Your task to perform on an android device: Open network settings Image 0: 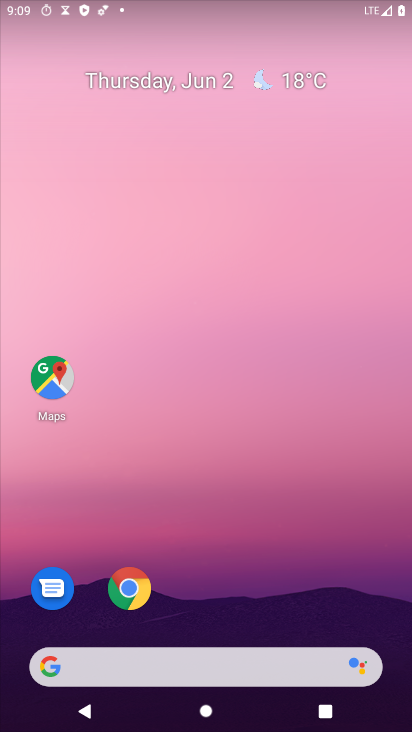
Step 0: drag from (222, 594) to (222, 79)
Your task to perform on an android device: Open network settings Image 1: 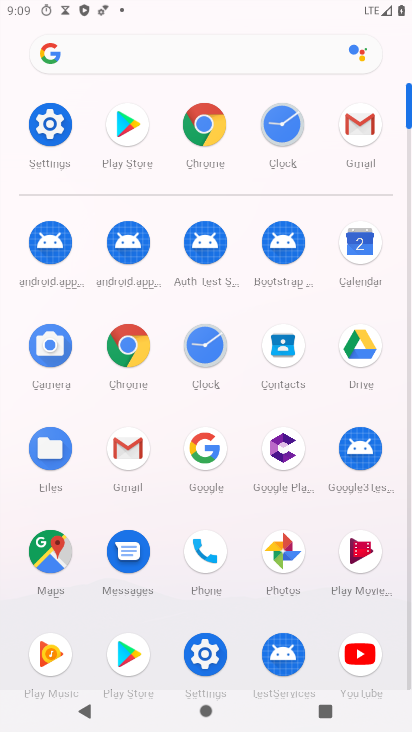
Step 1: click (55, 134)
Your task to perform on an android device: Open network settings Image 2: 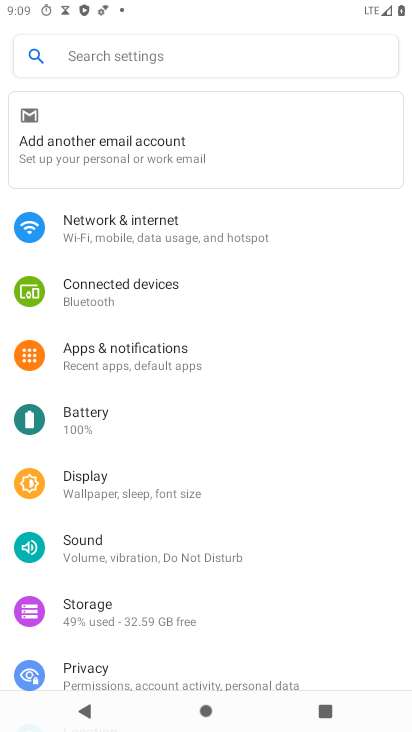
Step 2: click (113, 226)
Your task to perform on an android device: Open network settings Image 3: 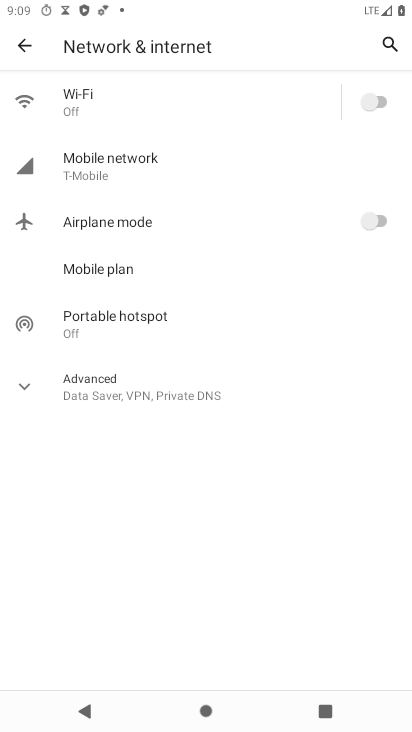
Step 3: task complete